Your task to perform on an android device: clear all cookies in the chrome app Image 0: 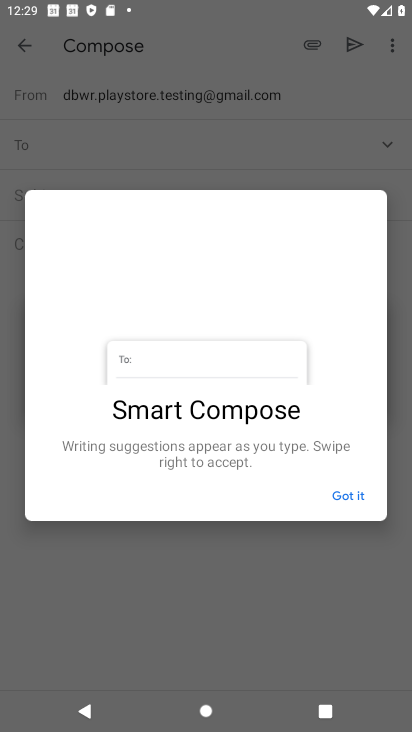
Step 0: click (360, 582)
Your task to perform on an android device: clear all cookies in the chrome app Image 1: 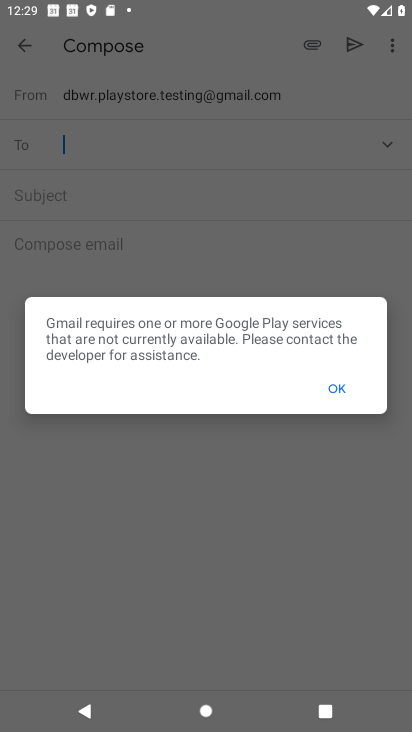
Step 1: press home button
Your task to perform on an android device: clear all cookies in the chrome app Image 2: 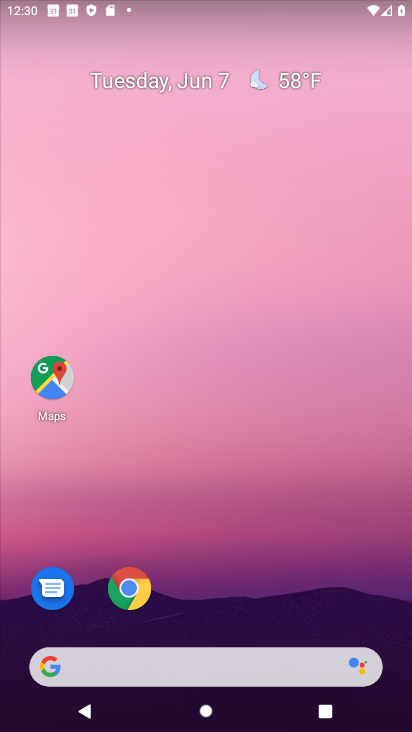
Step 2: click (143, 599)
Your task to perform on an android device: clear all cookies in the chrome app Image 3: 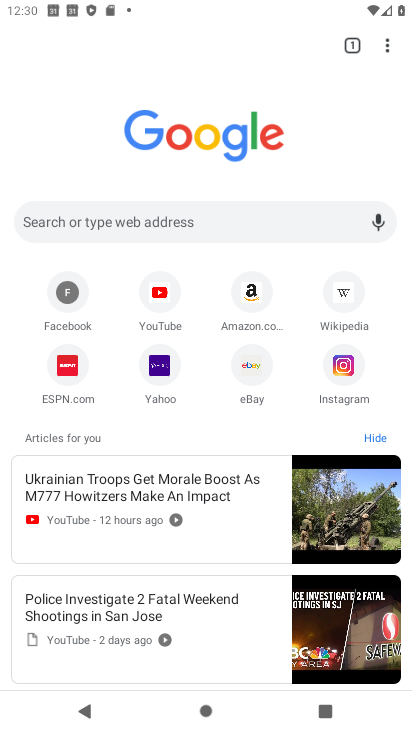
Step 3: click (390, 62)
Your task to perform on an android device: clear all cookies in the chrome app Image 4: 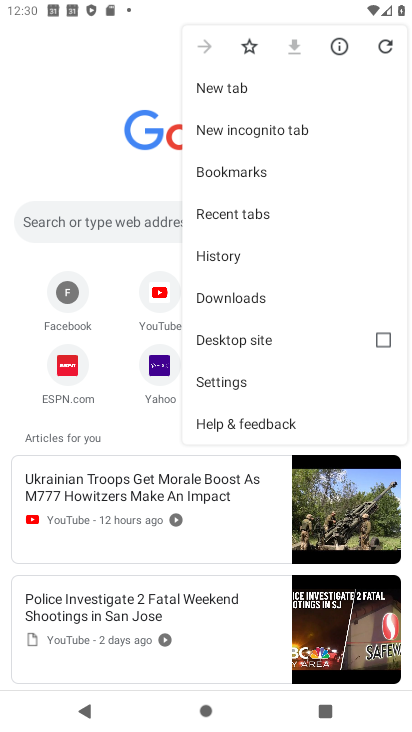
Step 4: click (254, 392)
Your task to perform on an android device: clear all cookies in the chrome app Image 5: 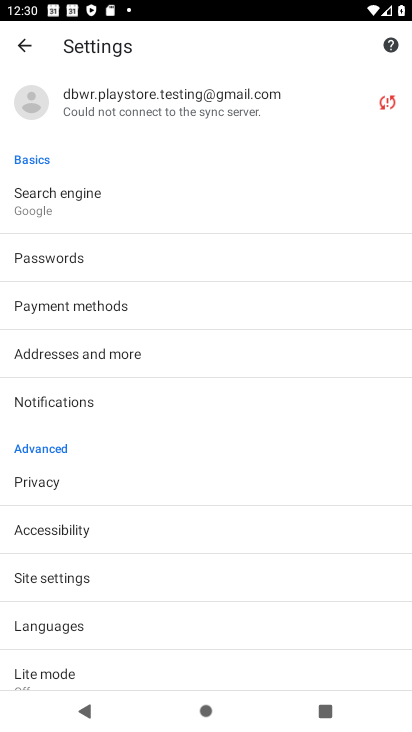
Step 5: task complete